Your task to perform on an android device: turn off notifications settings in the gmail app Image 0: 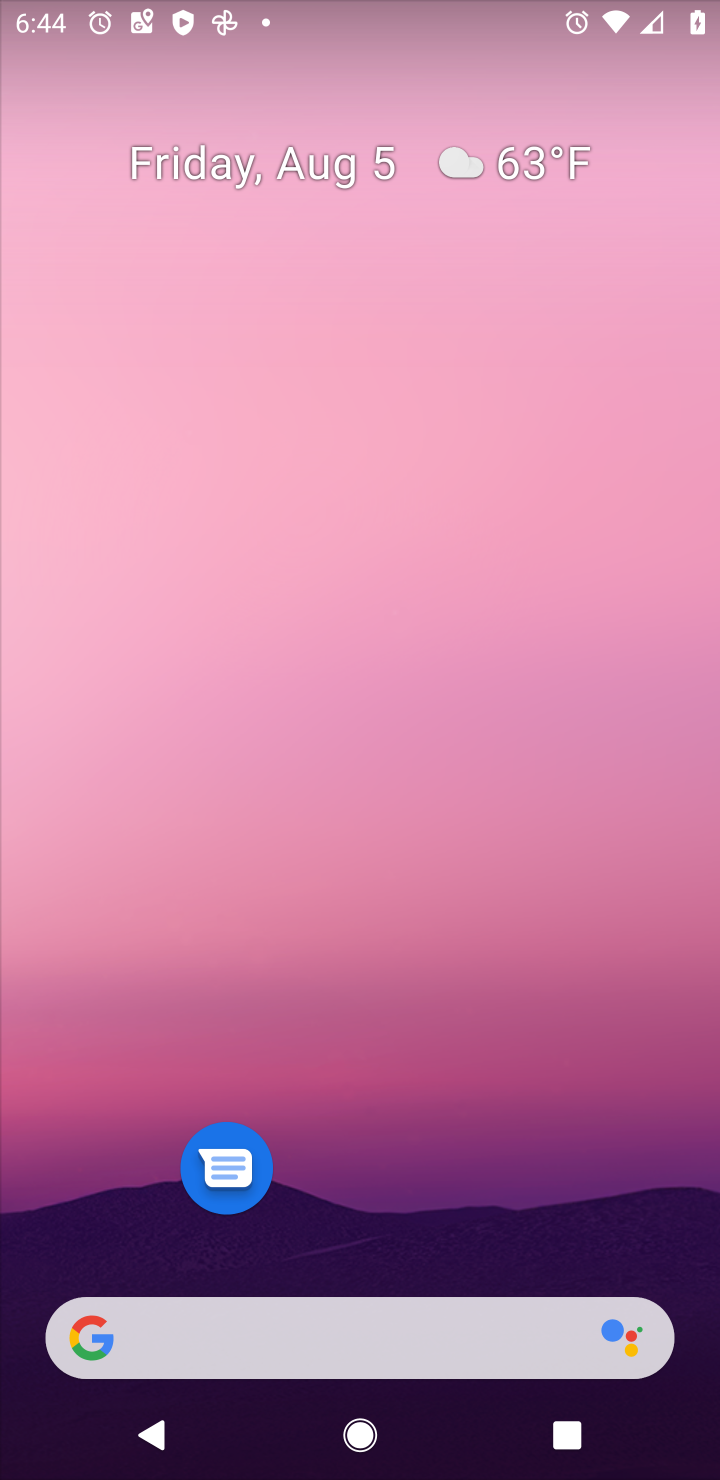
Step 0: press home button
Your task to perform on an android device: turn off notifications settings in the gmail app Image 1: 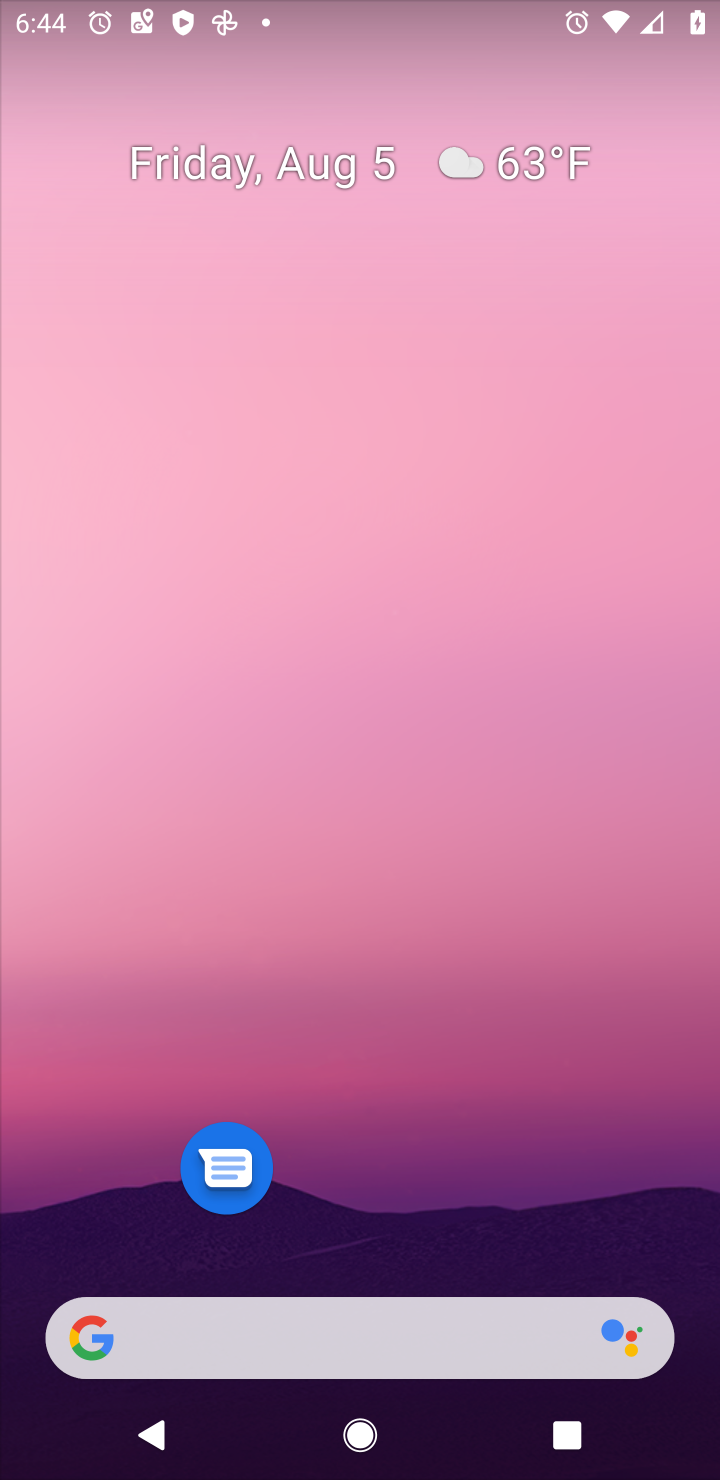
Step 1: drag from (411, 1246) to (475, 2)
Your task to perform on an android device: turn off notifications settings in the gmail app Image 2: 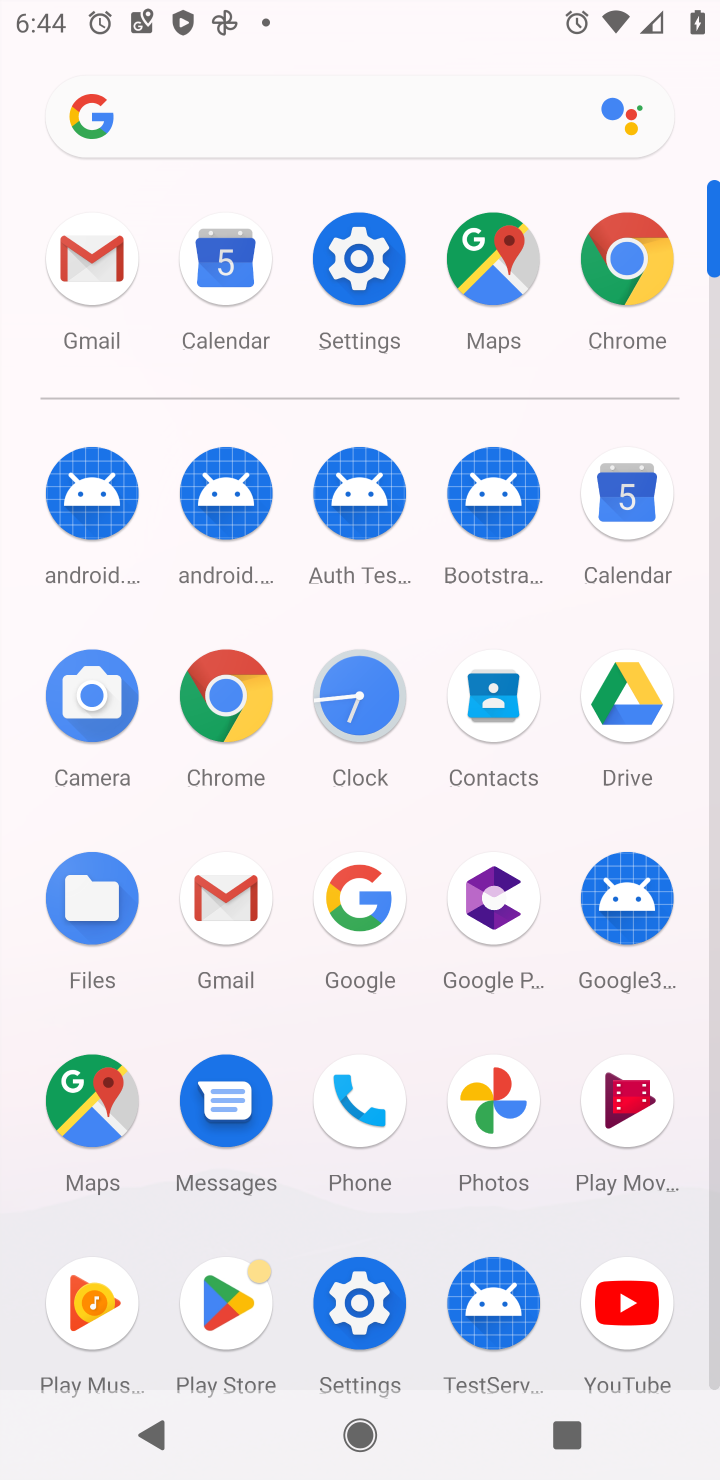
Step 2: click (76, 269)
Your task to perform on an android device: turn off notifications settings in the gmail app Image 3: 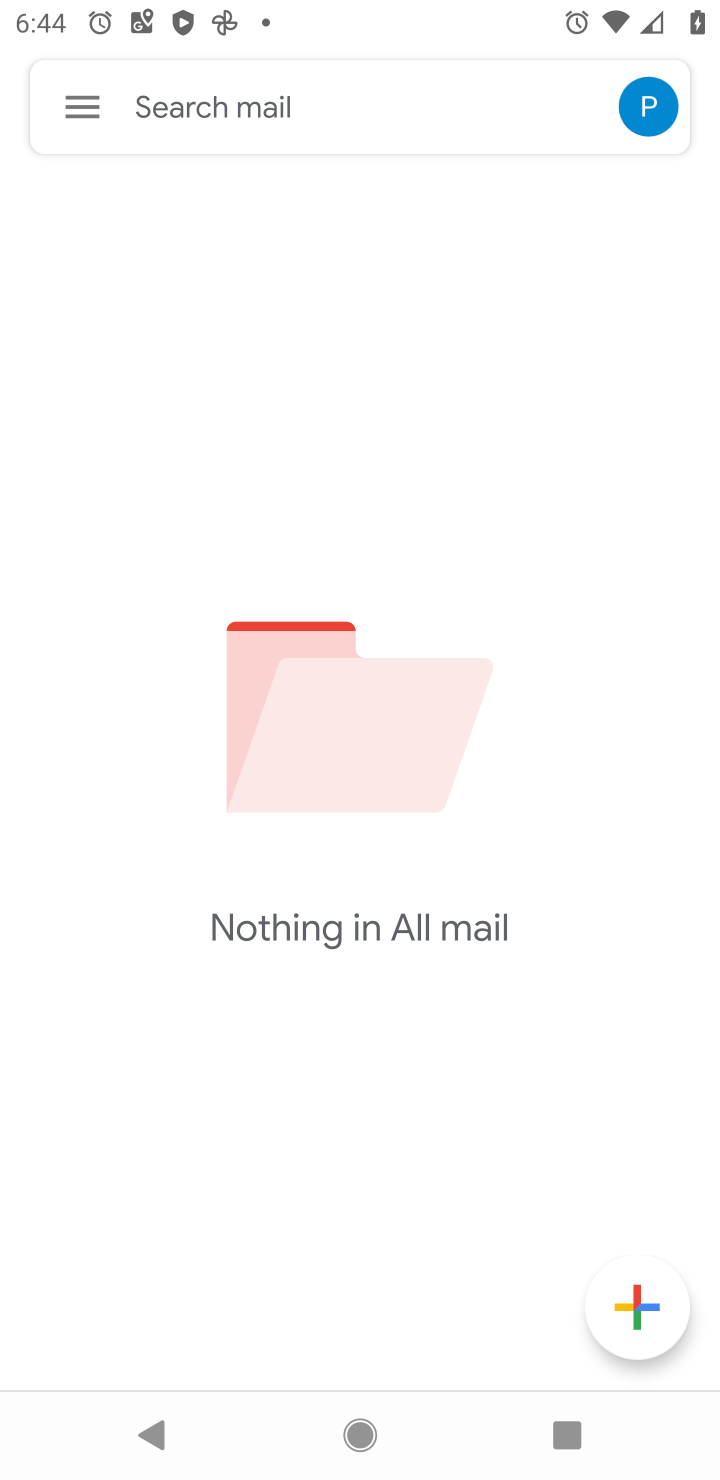
Step 3: click (78, 82)
Your task to perform on an android device: turn off notifications settings in the gmail app Image 4: 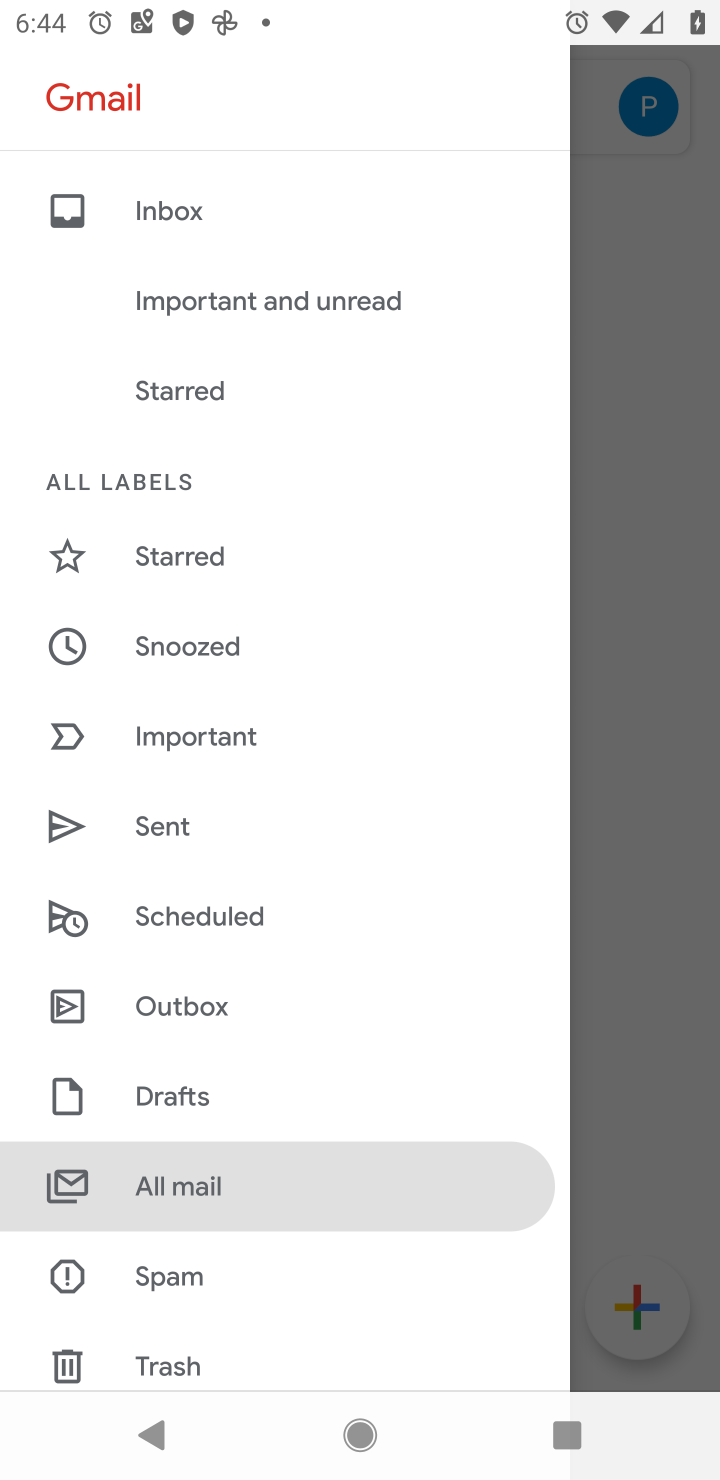
Step 4: drag from (404, 1035) to (354, 3)
Your task to perform on an android device: turn off notifications settings in the gmail app Image 5: 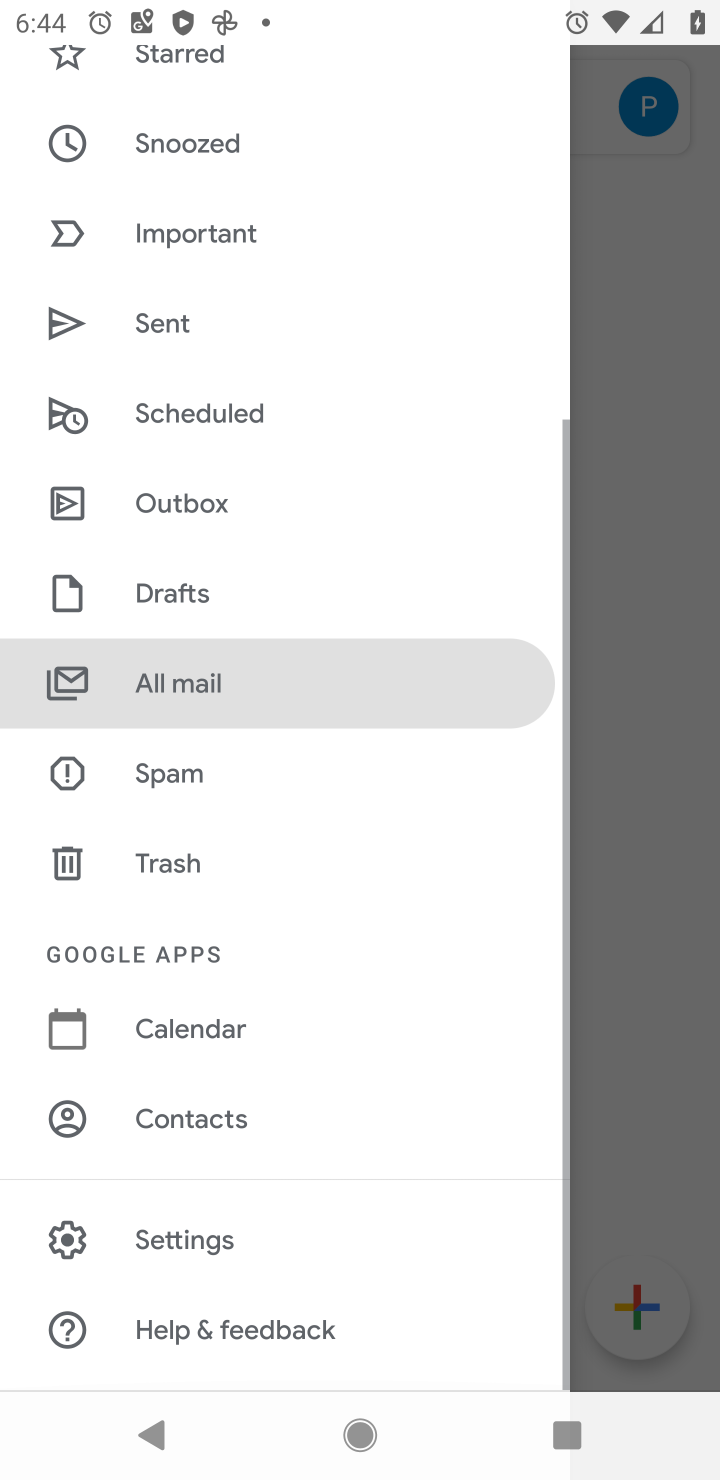
Step 5: click (184, 1253)
Your task to perform on an android device: turn off notifications settings in the gmail app Image 6: 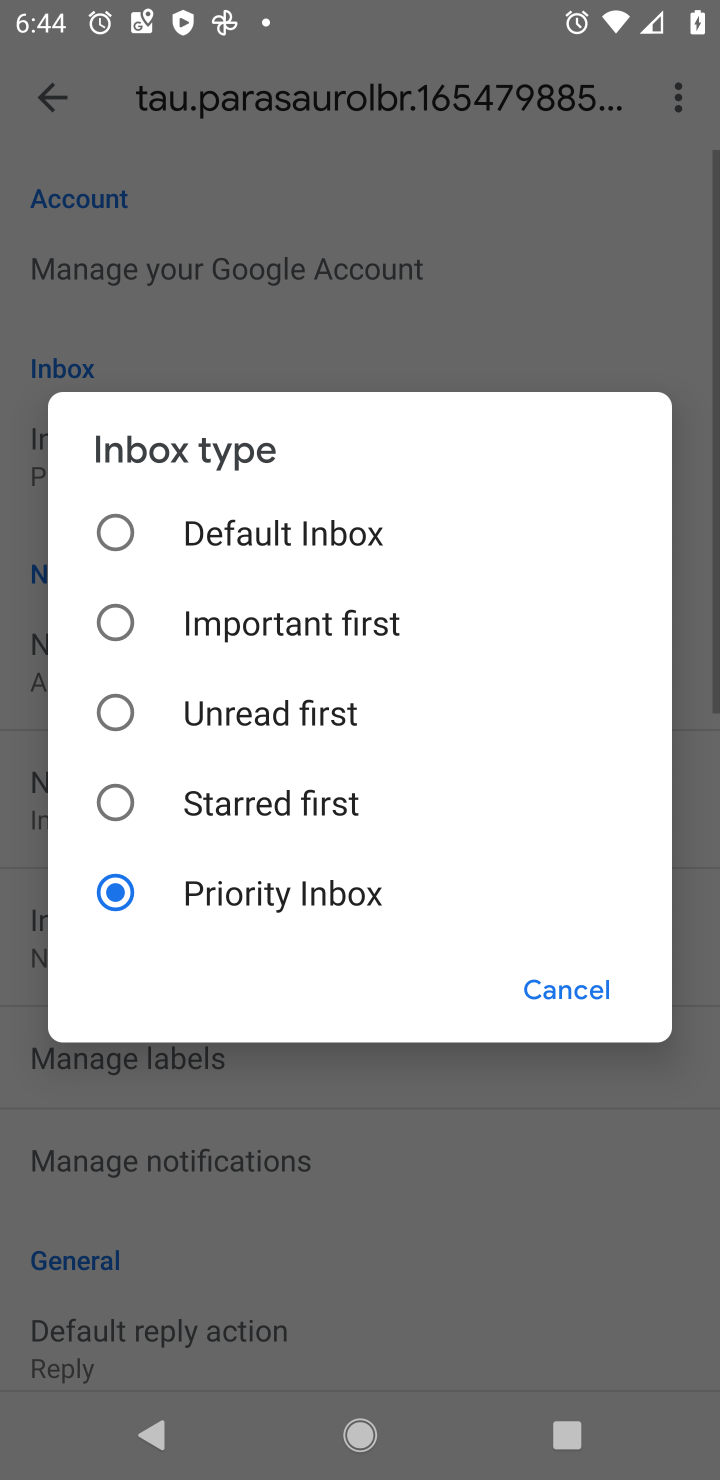
Step 6: click (564, 993)
Your task to perform on an android device: turn off notifications settings in the gmail app Image 7: 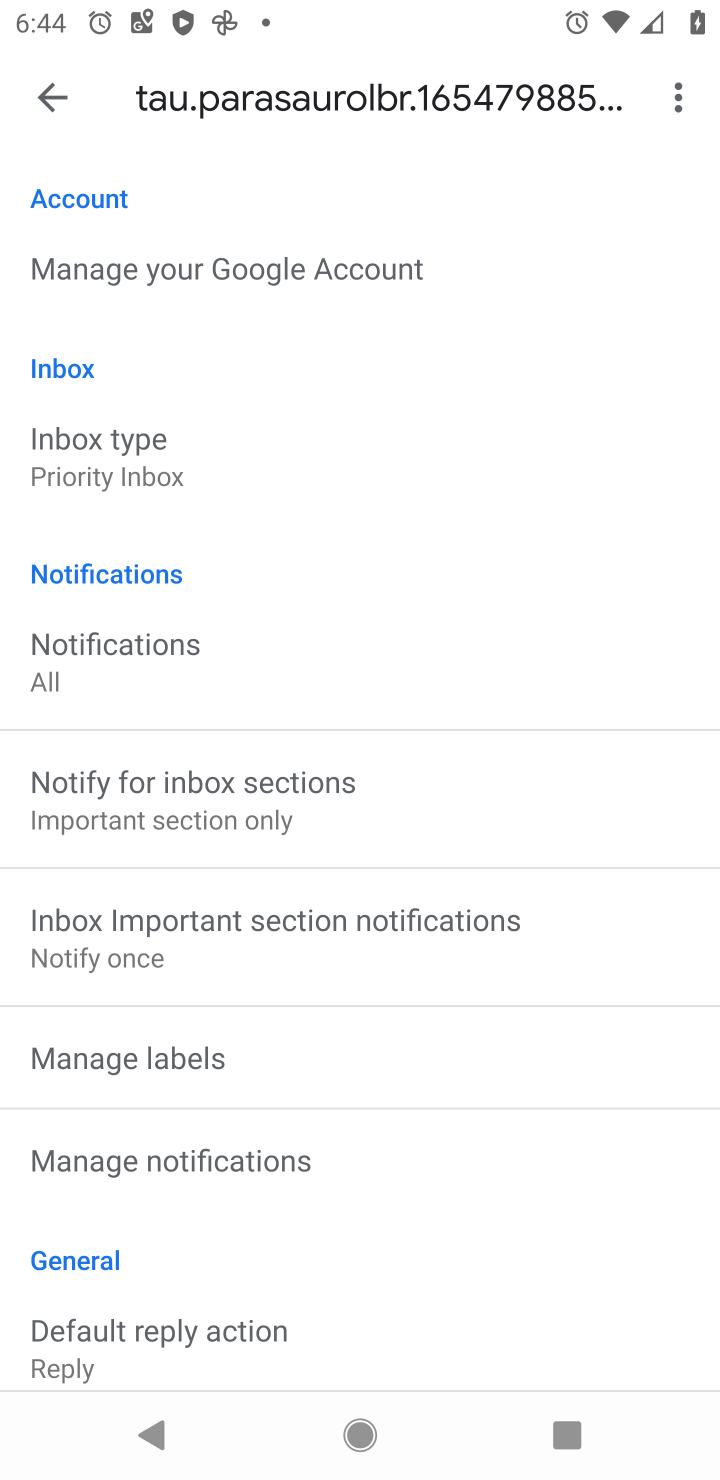
Step 7: click (164, 1167)
Your task to perform on an android device: turn off notifications settings in the gmail app Image 8: 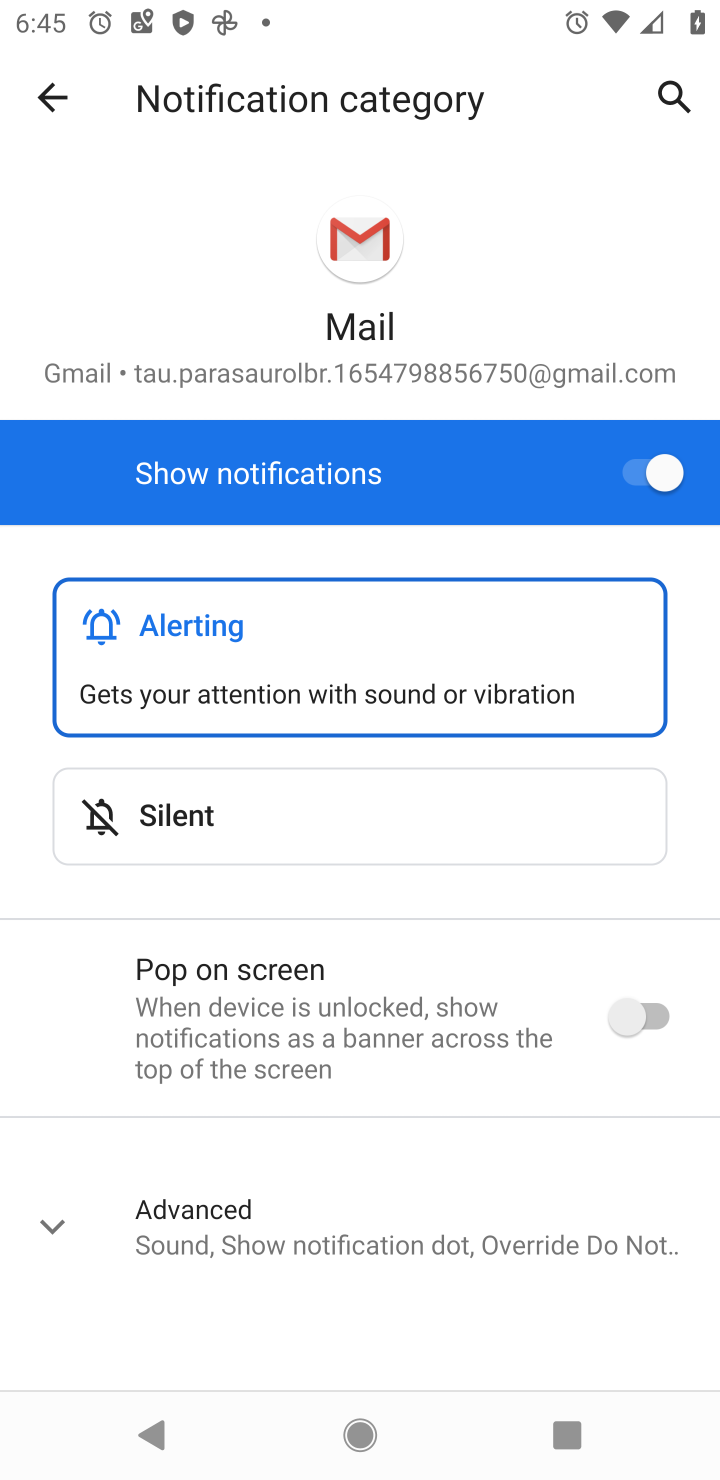
Step 8: click (670, 480)
Your task to perform on an android device: turn off notifications settings in the gmail app Image 9: 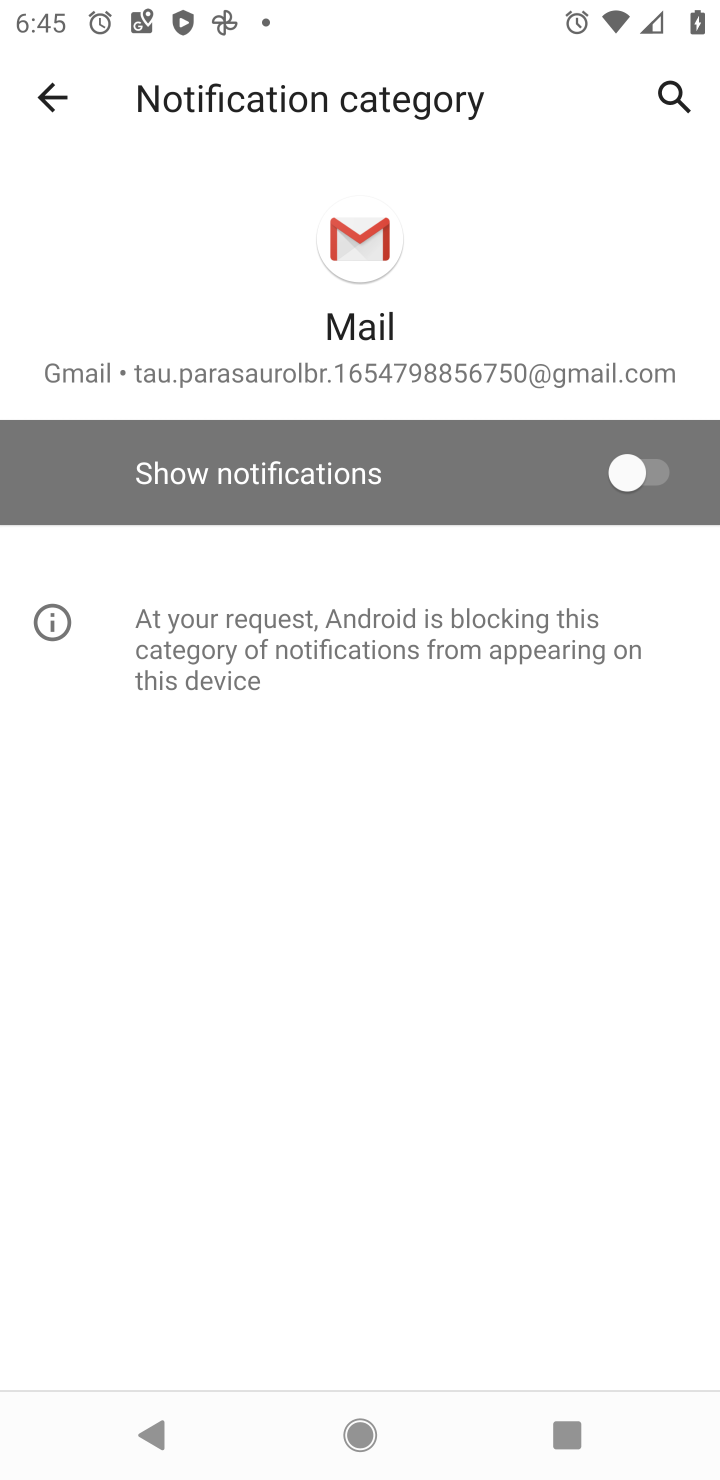
Step 9: task complete